Your task to perform on an android device: Open notification settings Image 0: 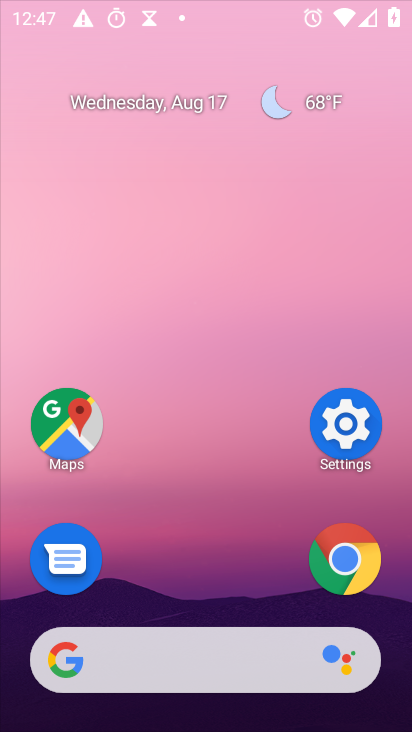
Step 0: press home button
Your task to perform on an android device: Open notification settings Image 1: 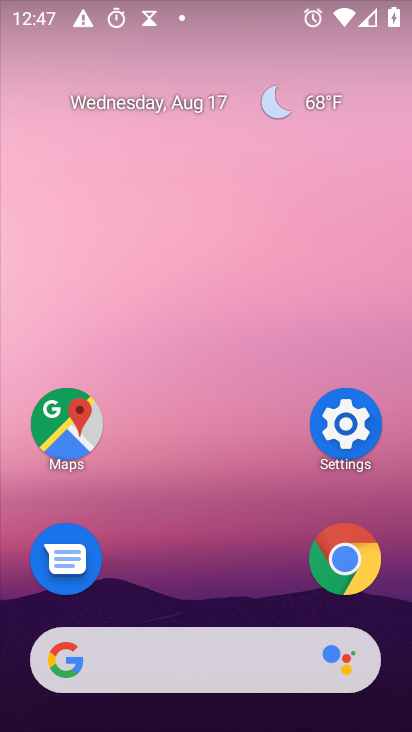
Step 1: click (343, 423)
Your task to perform on an android device: Open notification settings Image 2: 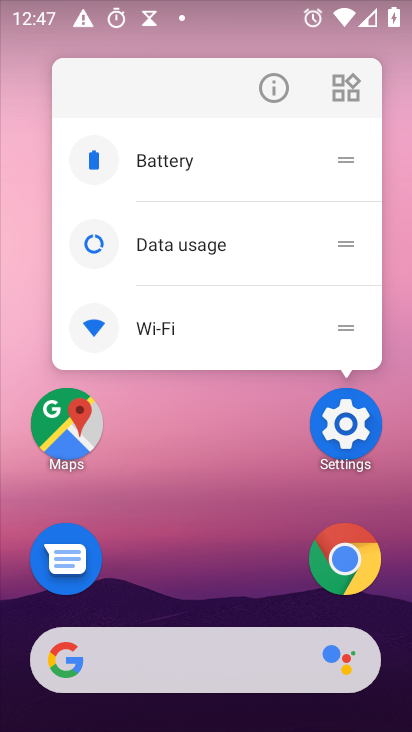
Step 2: click (348, 436)
Your task to perform on an android device: Open notification settings Image 3: 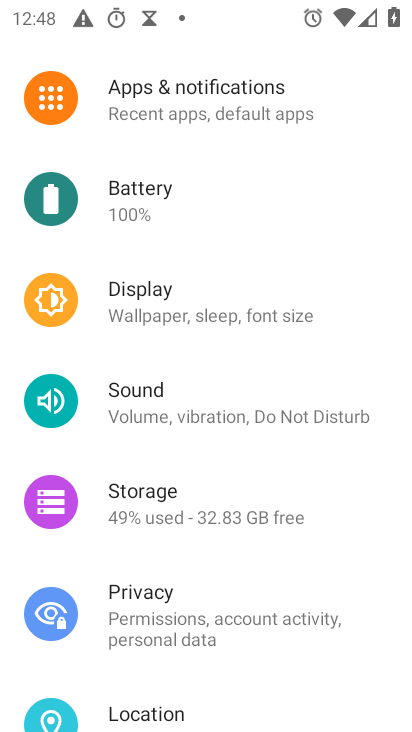
Step 3: click (233, 115)
Your task to perform on an android device: Open notification settings Image 4: 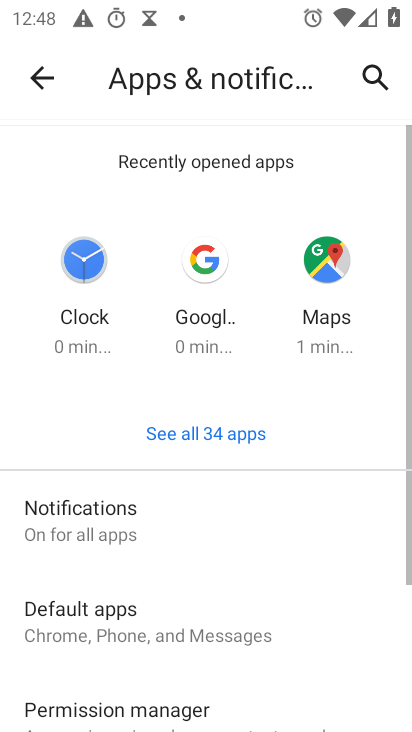
Step 4: click (100, 516)
Your task to perform on an android device: Open notification settings Image 5: 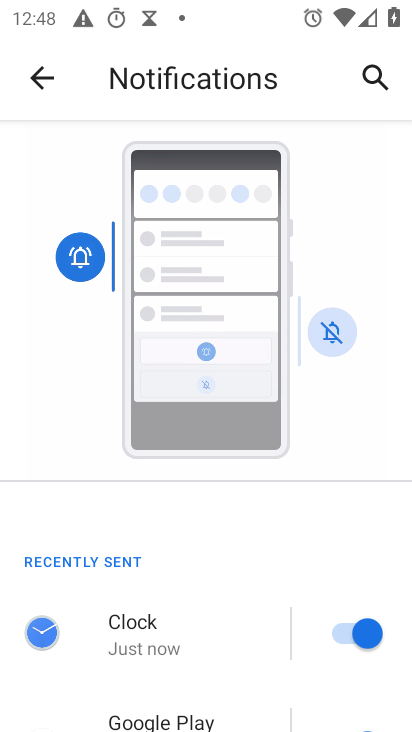
Step 5: task complete